Your task to perform on an android device: Do I have any events this weekend? Image 0: 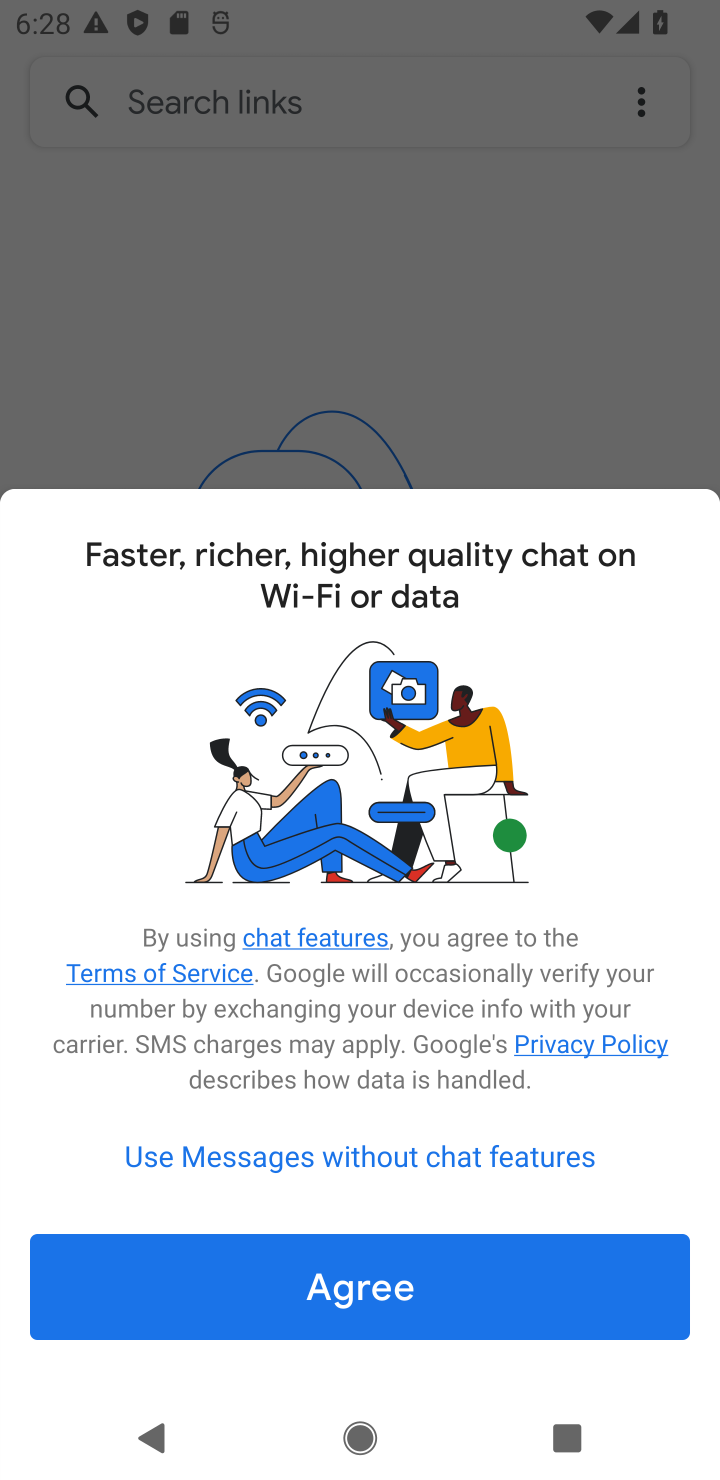
Step 0: press back button
Your task to perform on an android device: Do I have any events this weekend? Image 1: 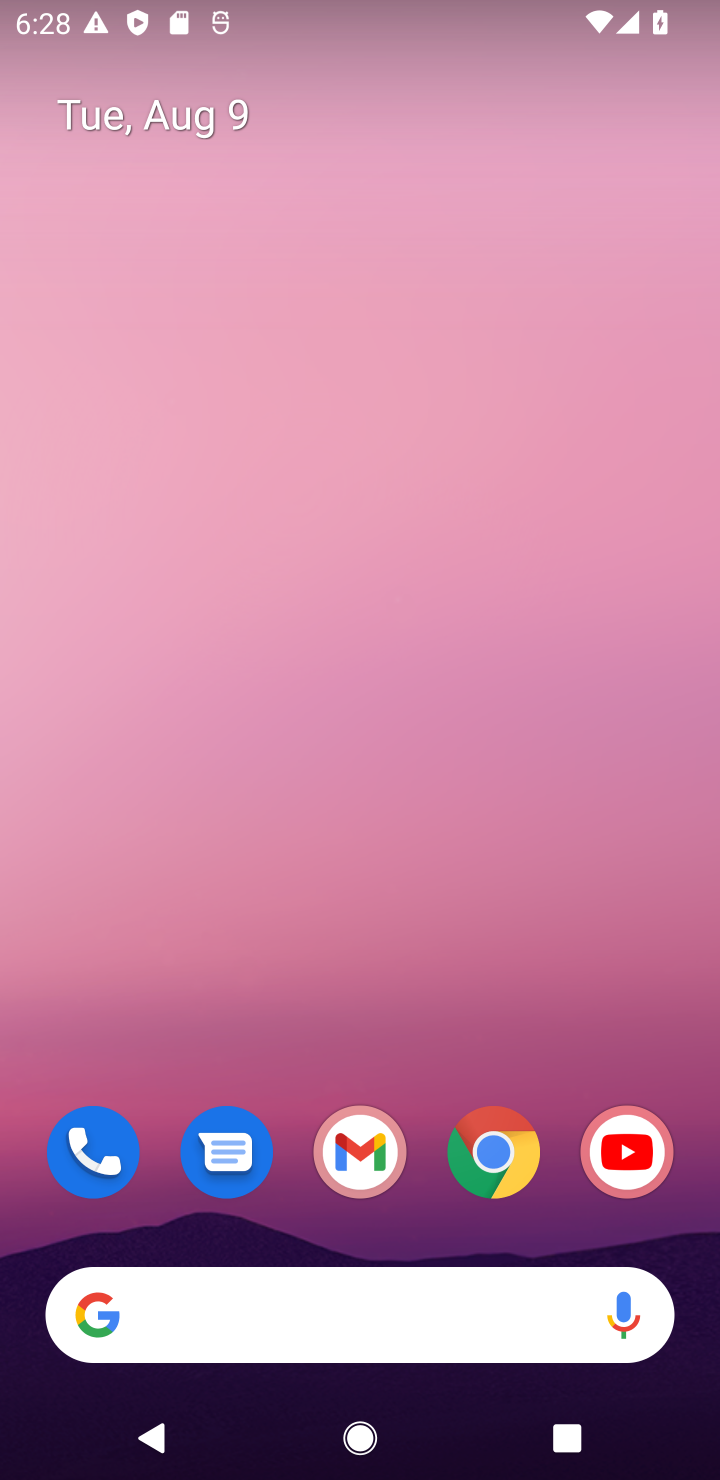
Step 1: press home button
Your task to perform on an android device: Do I have any events this weekend? Image 2: 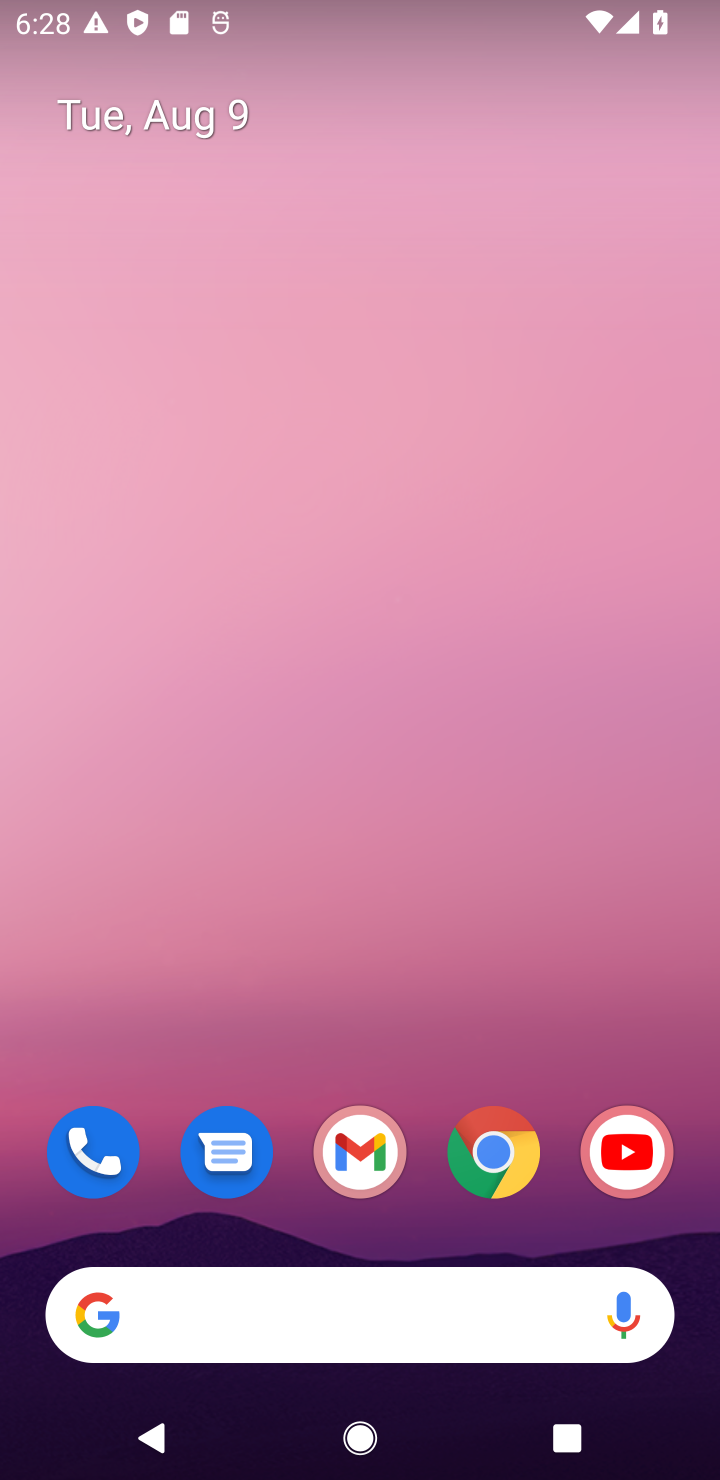
Step 2: drag from (314, 1226) to (534, 28)
Your task to perform on an android device: Do I have any events this weekend? Image 3: 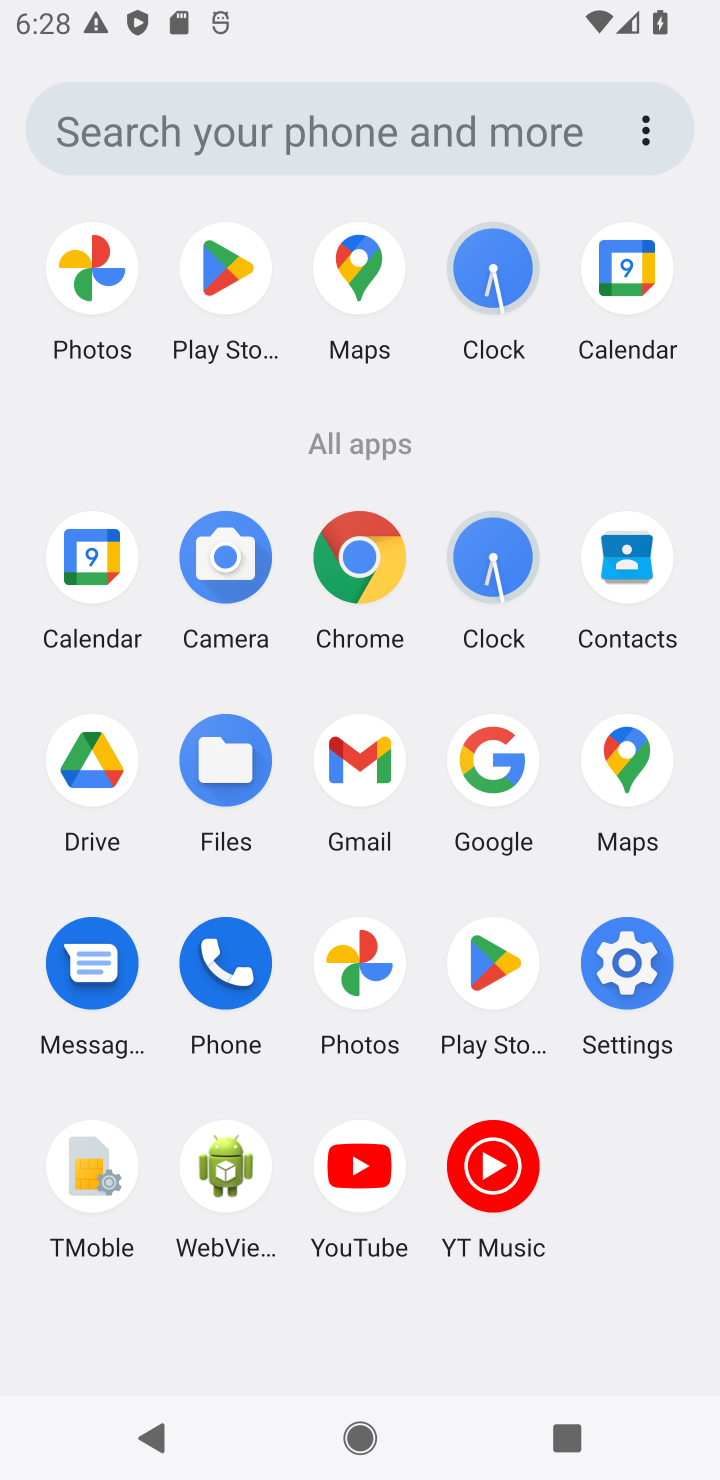
Step 3: click (637, 277)
Your task to perform on an android device: Do I have any events this weekend? Image 4: 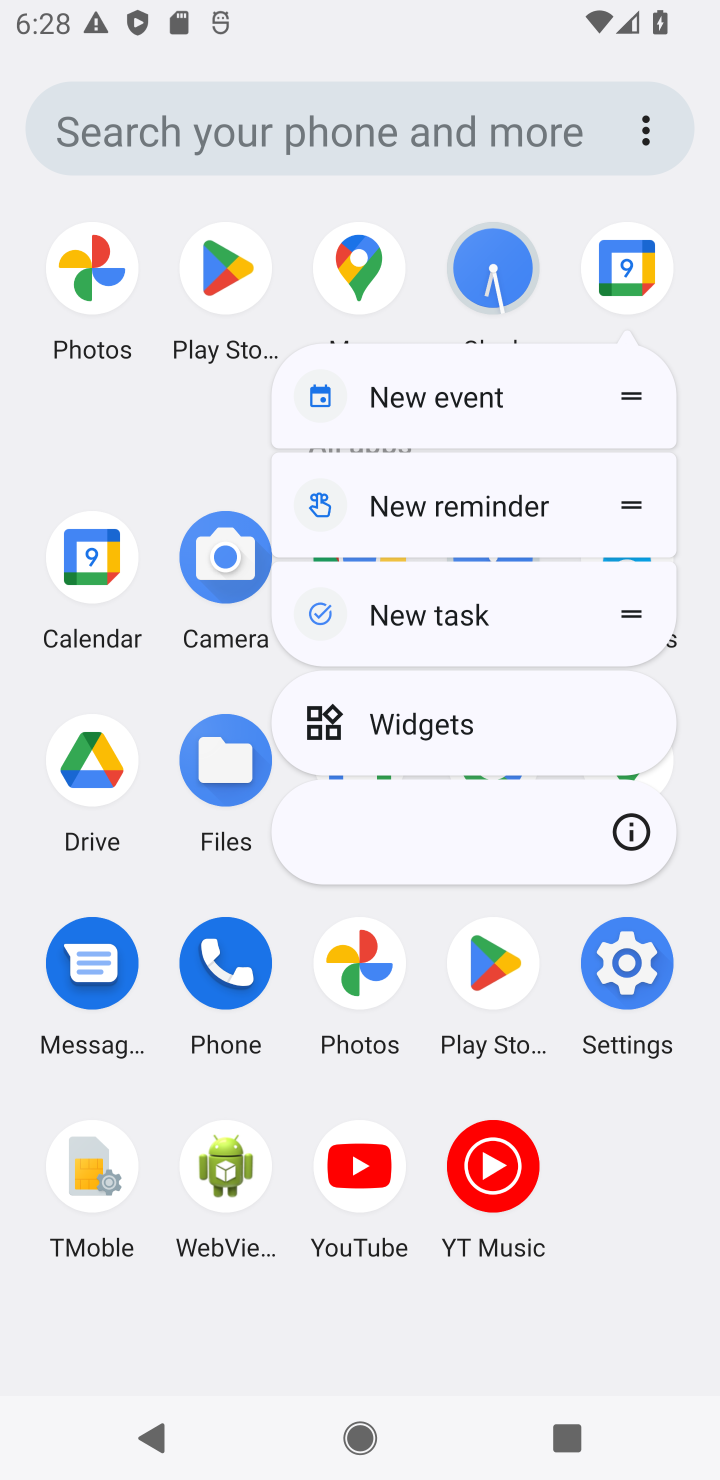
Step 4: click (622, 262)
Your task to perform on an android device: Do I have any events this weekend? Image 5: 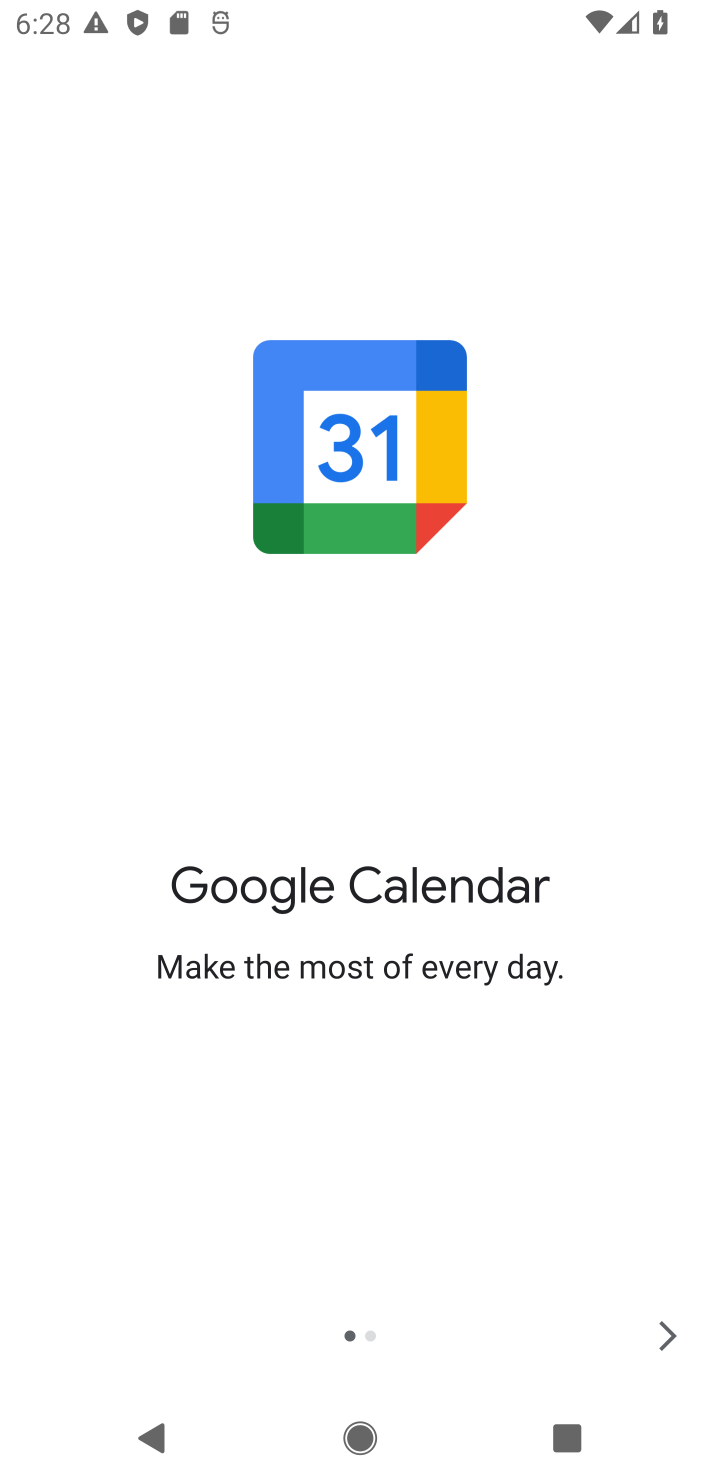
Step 5: click (652, 1339)
Your task to perform on an android device: Do I have any events this weekend? Image 6: 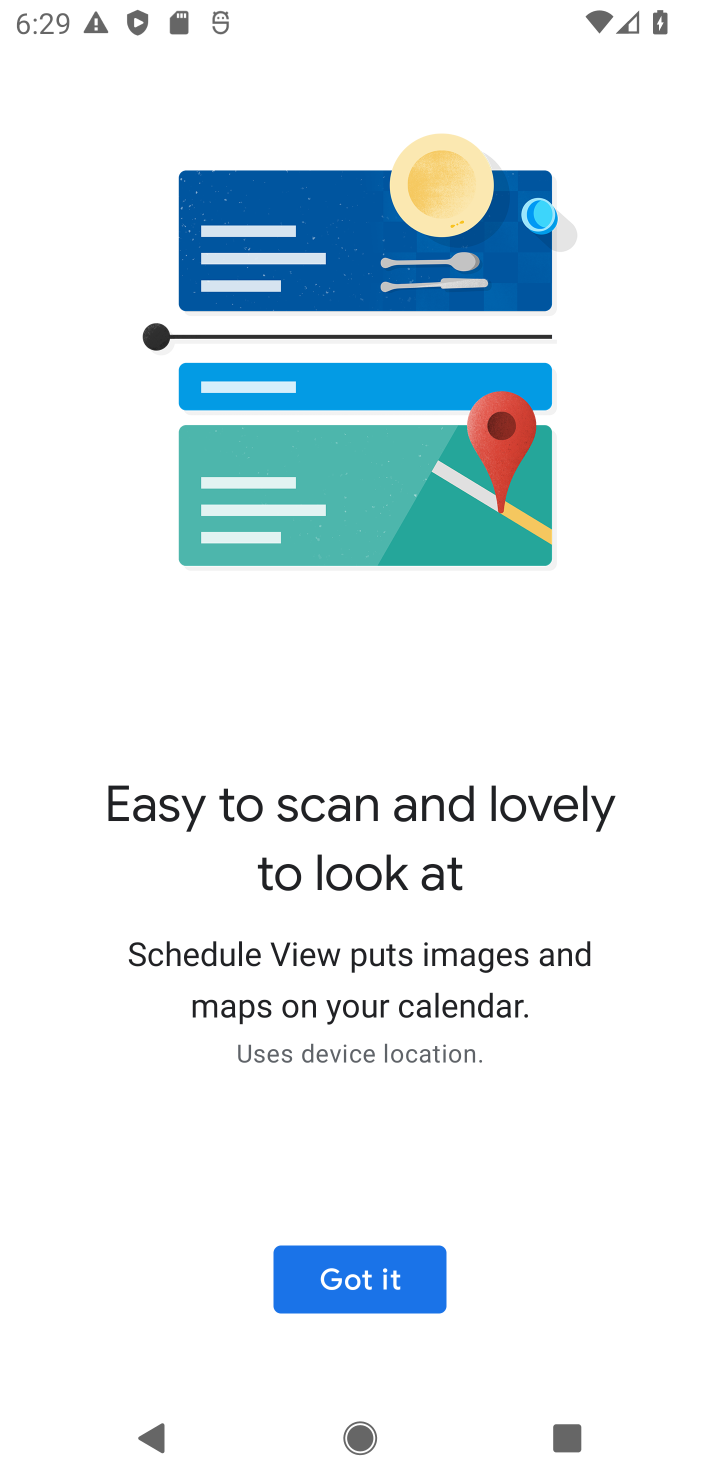
Step 6: click (403, 1280)
Your task to perform on an android device: Do I have any events this weekend? Image 7: 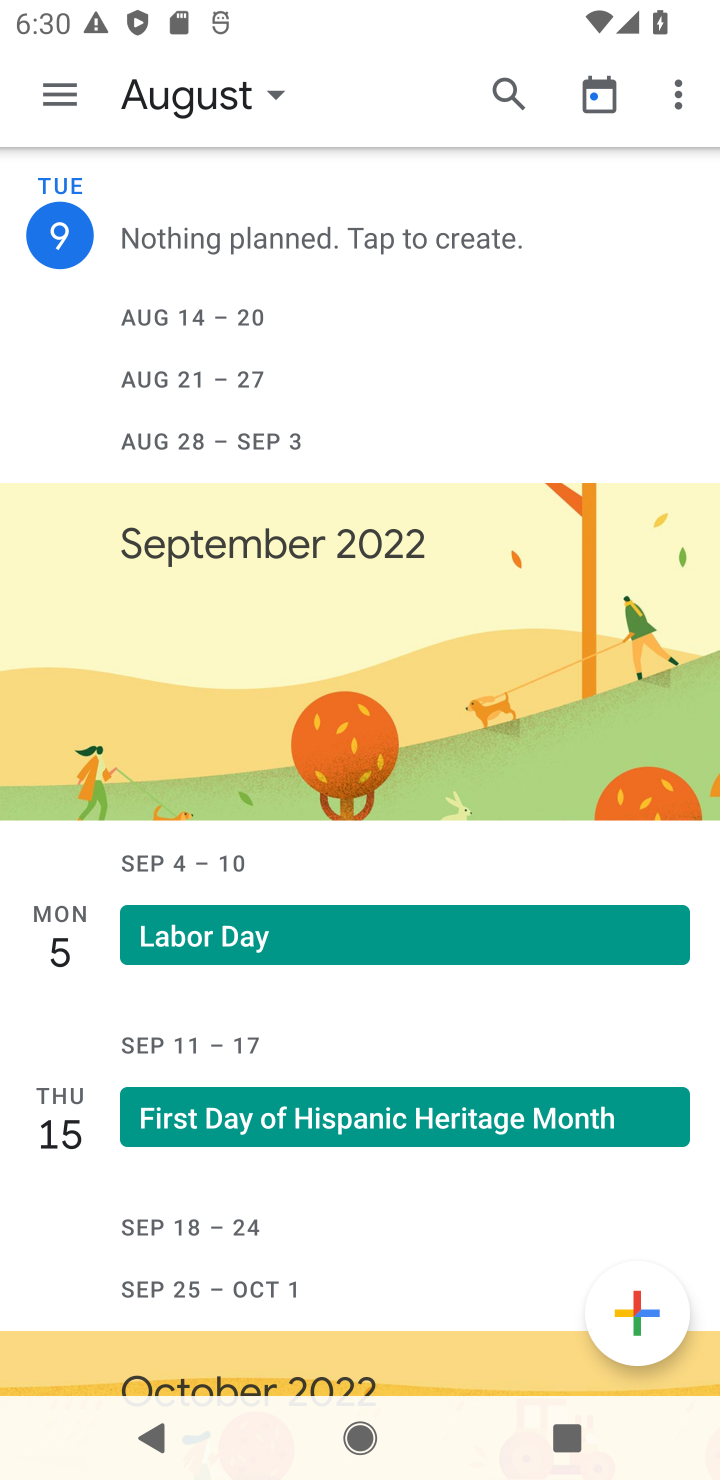
Step 7: click (269, 96)
Your task to perform on an android device: Do I have any events this weekend? Image 8: 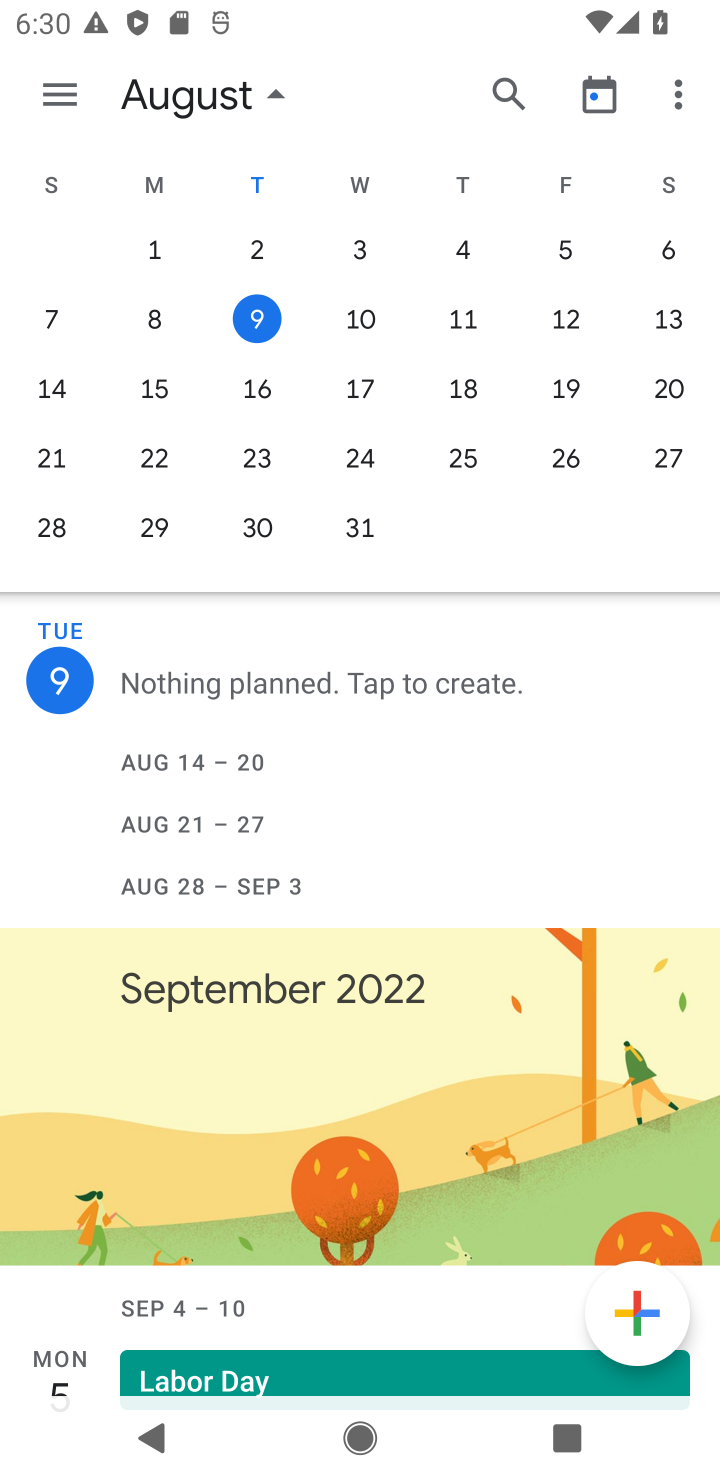
Step 8: click (668, 296)
Your task to perform on an android device: Do I have any events this weekend? Image 9: 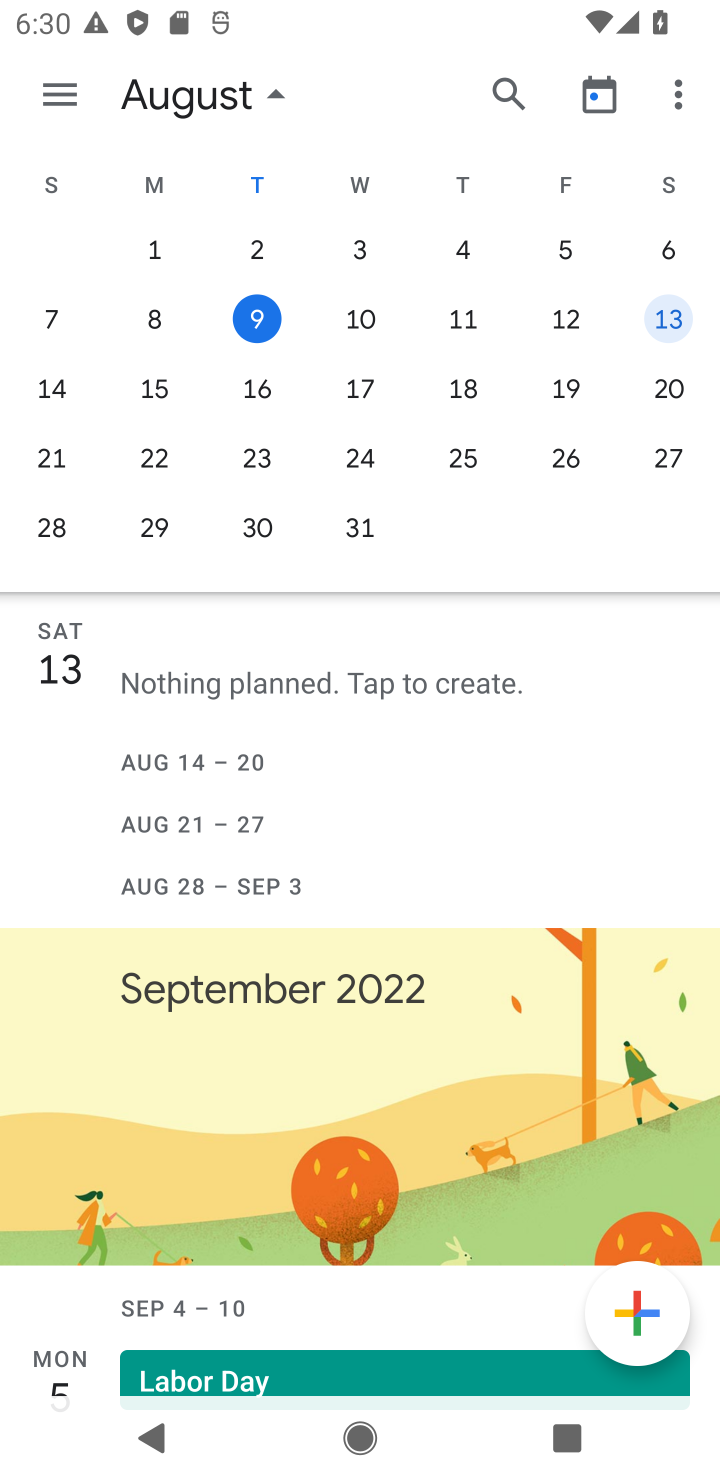
Step 9: task complete